Your task to perform on an android device: turn on location history Image 0: 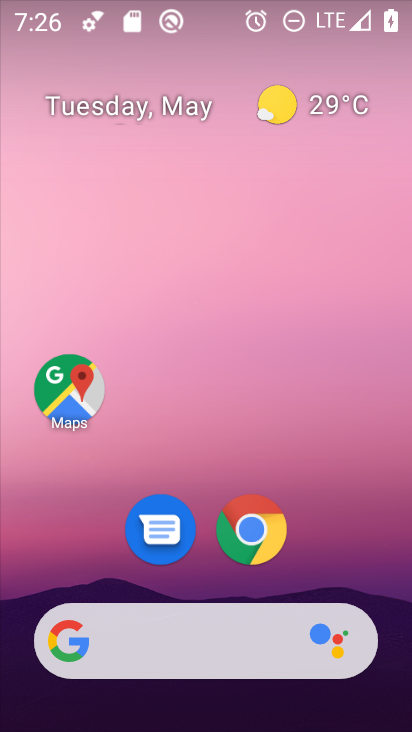
Step 0: drag from (383, 616) to (161, 54)
Your task to perform on an android device: turn on location history Image 1: 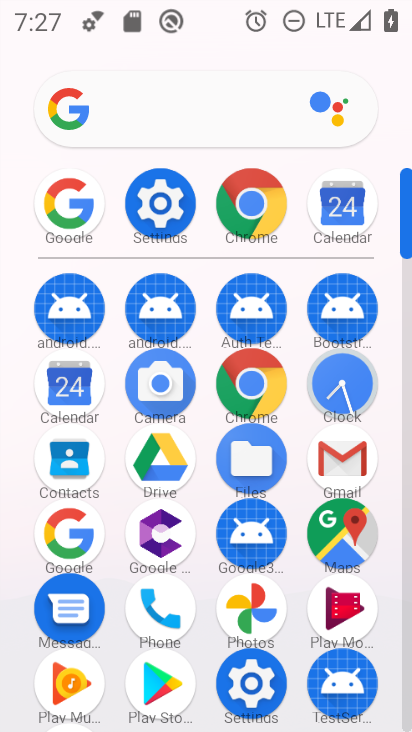
Step 1: click (270, 666)
Your task to perform on an android device: turn on location history Image 2: 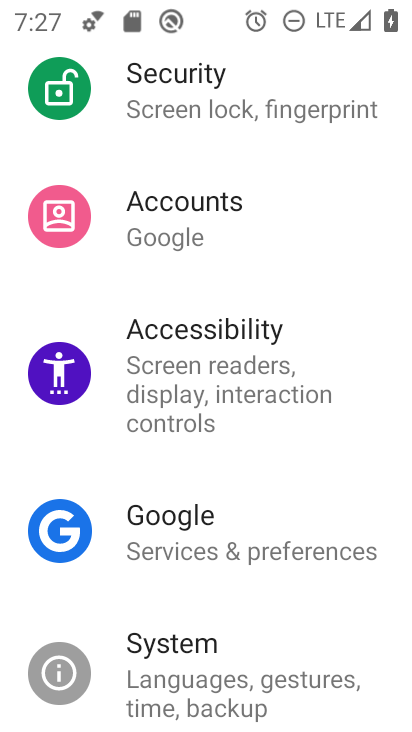
Step 2: drag from (257, 191) to (256, 666)
Your task to perform on an android device: turn on location history Image 3: 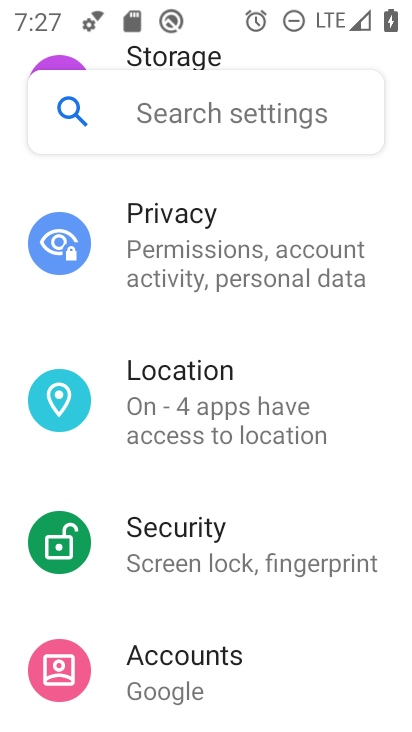
Step 3: click (170, 445)
Your task to perform on an android device: turn on location history Image 4: 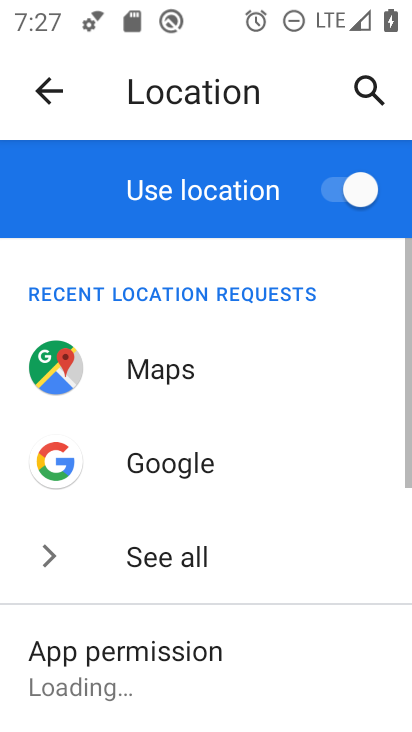
Step 4: drag from (150, 657) to (191, 166)
Your task to perform on an android device: turn on location history Image 5: 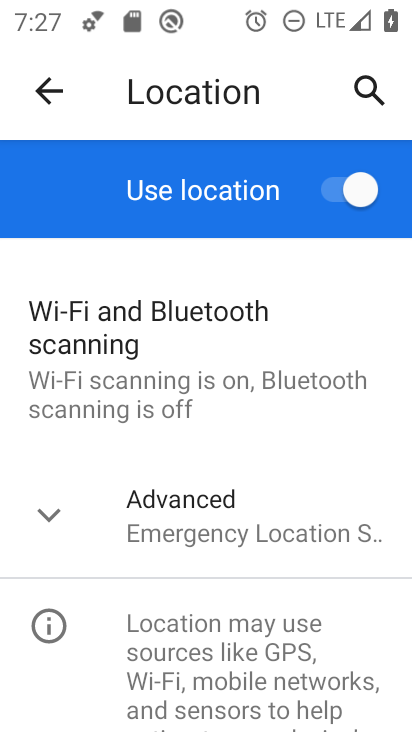
Step 5: click (87, 496)
Your task to perform on an android device: turn on location history Image 6: 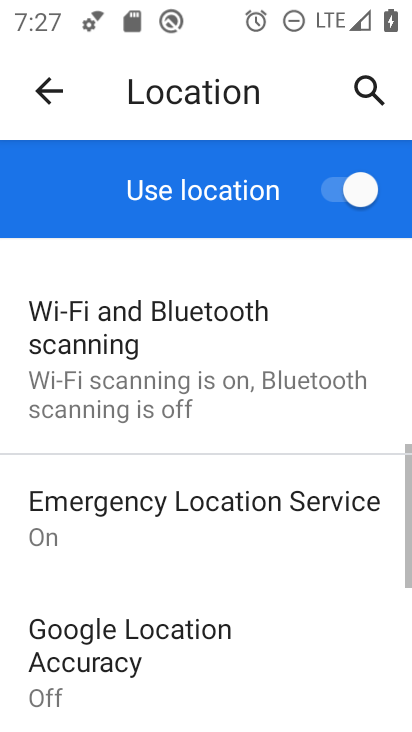
Step 6: drag from (166, 559) to (174, 159)
Your task to perform on an android device: turn on location history Image 7: 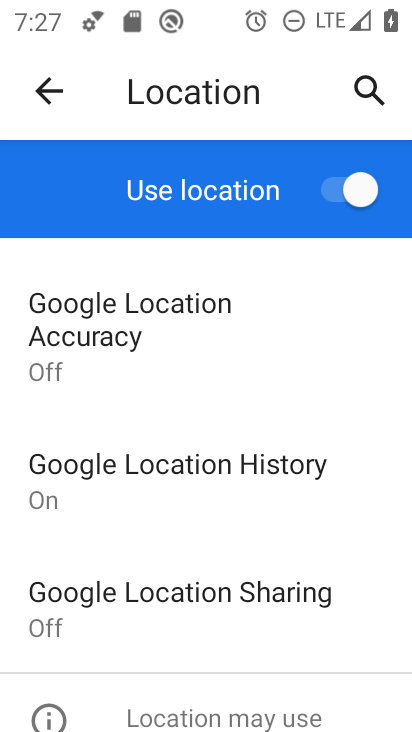
Step 7: click (150, 485)
Your task to perform on an android device: turn on location history Image 8: 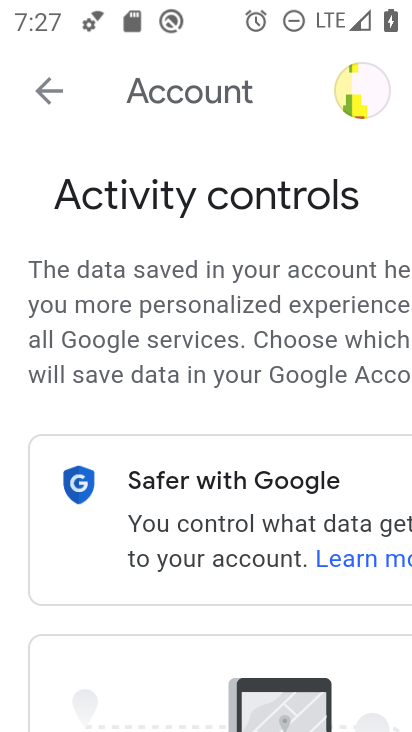
Step 8: task complete